Your task to perform on an android device: change keyboard looks Image 0: 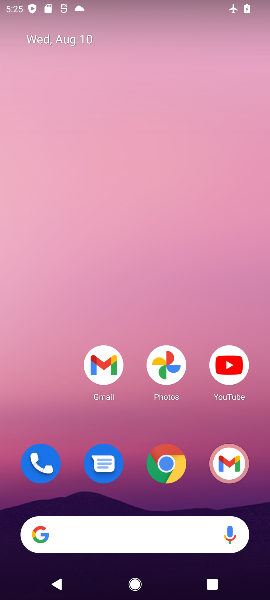
Step 0: drag from (133, 484) to (88, 120)
Your task to perform on an android device: change keyboard looks Image 1: 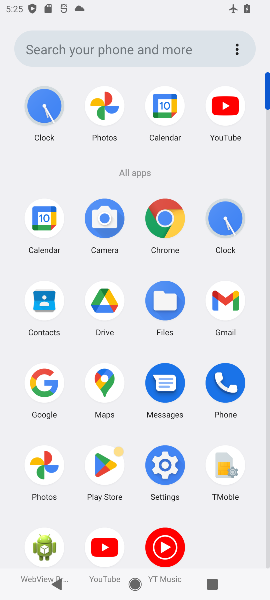
Step 1: click (164, 463)
Your task to perform on an android device: change keyboard looks Image 2: 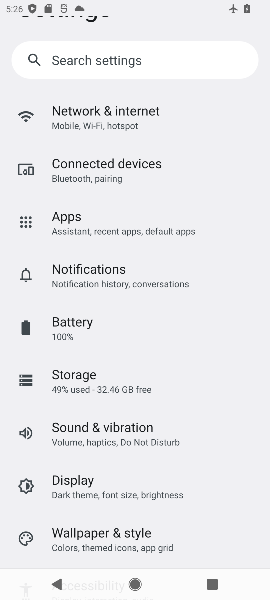
Step 2: drag from (177, 504) to (163, 309)
Your task to perform on an android device: change keyboard looks Image 3: 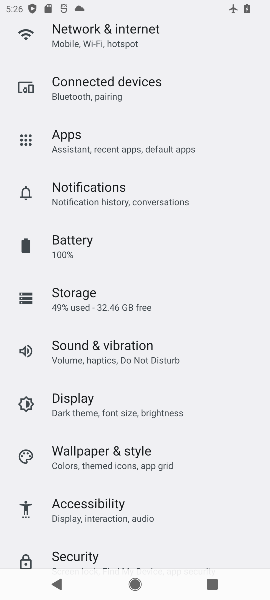
Step 3: drag from (175, 491) to (198, 37)
Your task to perform on an android device: change keyboard looks Image 4: 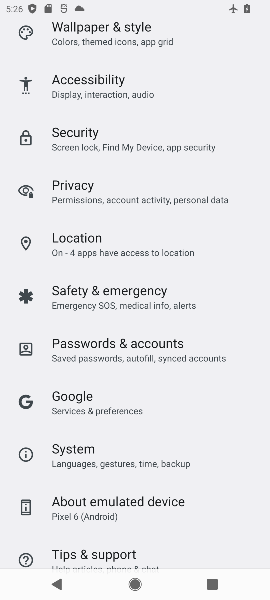
Step 4: click (78, 448)
Your task to perform on an android device: change keyboard looks Image 5: 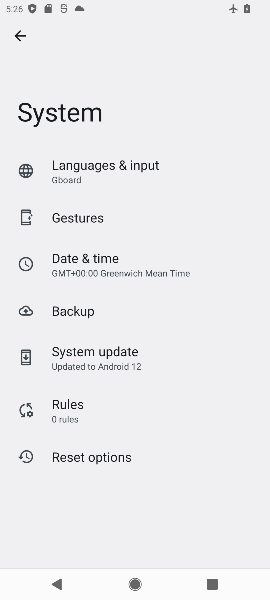
Step 5: click (80, 162)
Your task to perform on an android device: change keyboard looks Image 6: 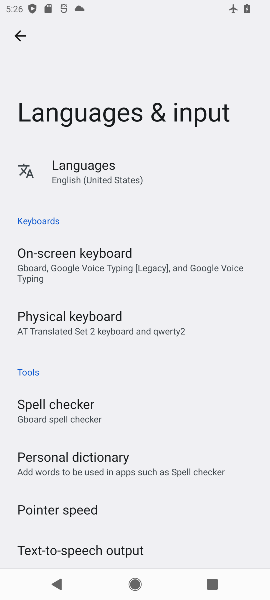
Step 6: click (70, 318)
Your task to perform on an android device: change keyboard looks Image 7: 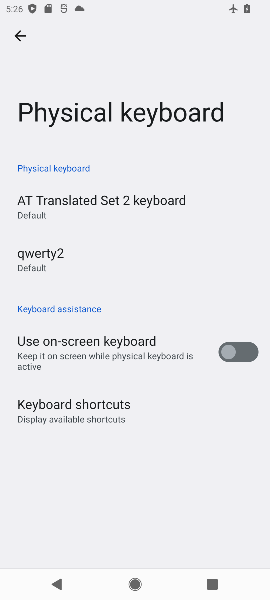
Step 7: click (17, 38)
Your task to perform on an android device: change keyboard looks Image 8: 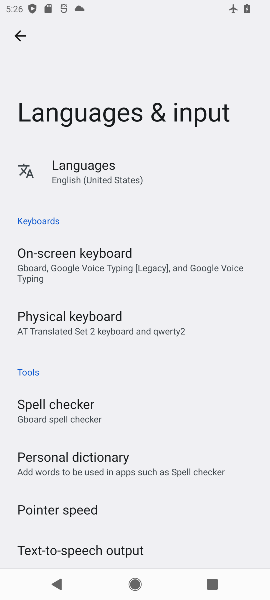
Step 8: click (100, 242)
Your task to perform on an android device: change keyboard looks Image 9: 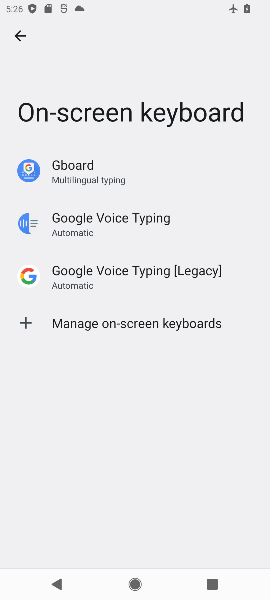
Step 9: click (67, 163)
Your task to perform on an android device: change keyboard looks Image 10: 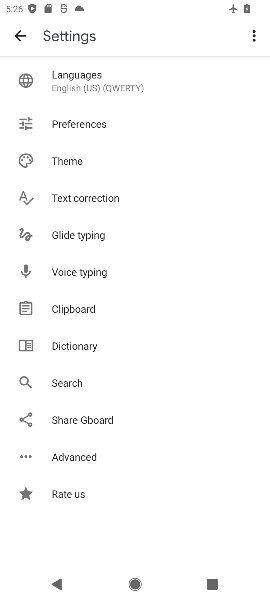
Step 10: click (69, 156)
Your task to perform on an android device: change keyboard looks Image 11: 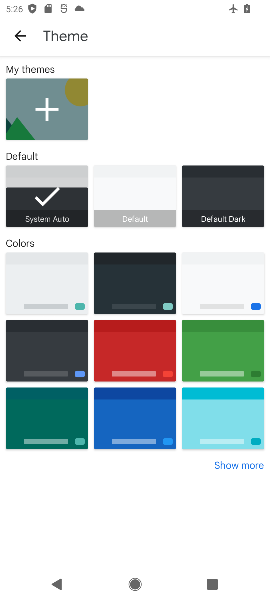
Step 11: click (227, 210)
Your task to perform on an android device: change keyboard looks Image 12: 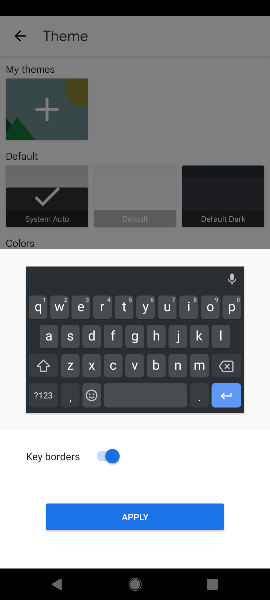
Step 12: click (144, 513)
Your task to perform on an android device: change keyboard looks Image 13: 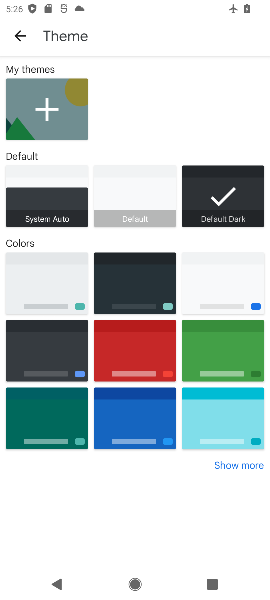
Step 13: task complete